Your task to perform on an android device: See recent photos Image 0: 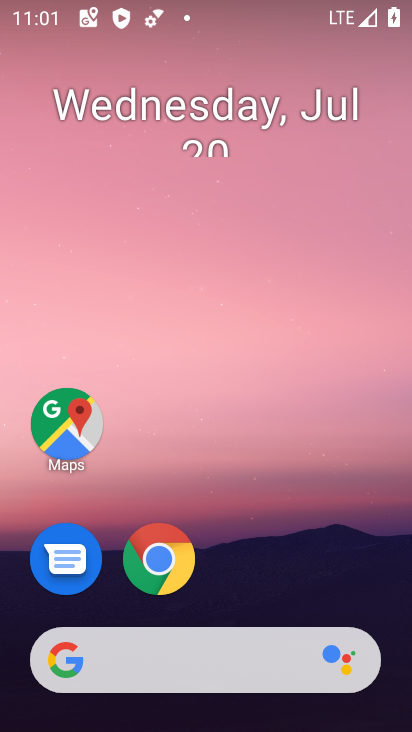
Step 0: drag from (223, 607) to (278, 88)
Your task to perform on an android device: See recent photos Image 1: 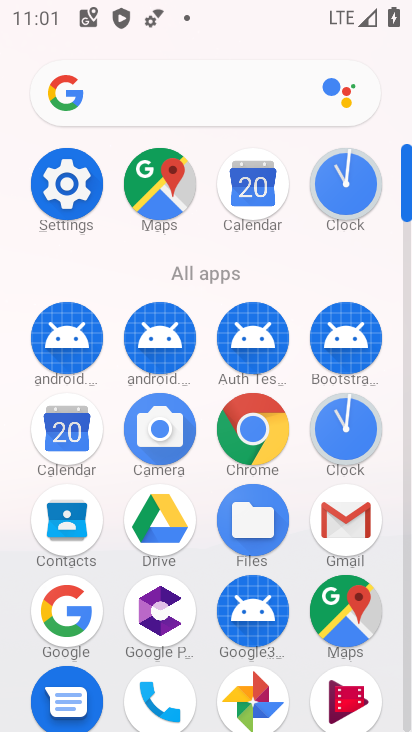
Step 1: drag from (169, 496) to (258, 74)
Your task to perform on an android device: See recent photos Image 2: 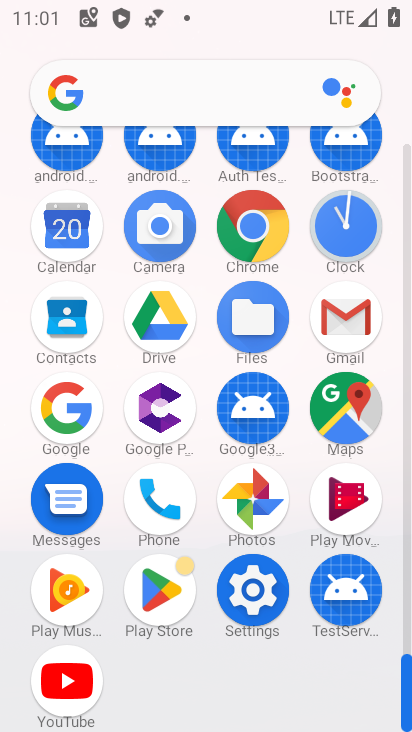
Step 2: click (257, 522)
Your task to perform on an android device: See recent photos Image 3: 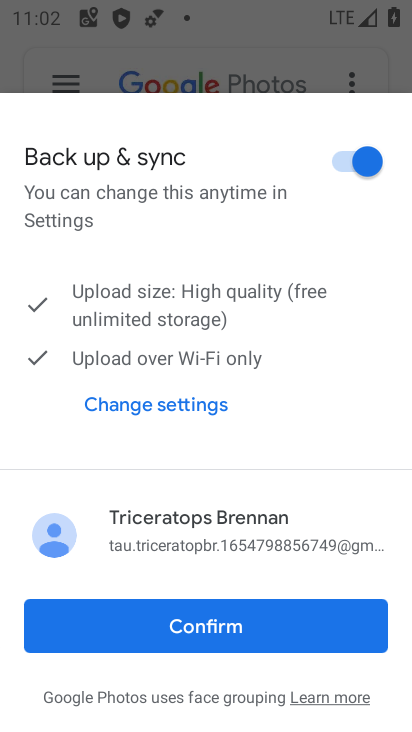
Step 3: click (253, 654)
Your task to perform on an android device: See recent photos Image 4: 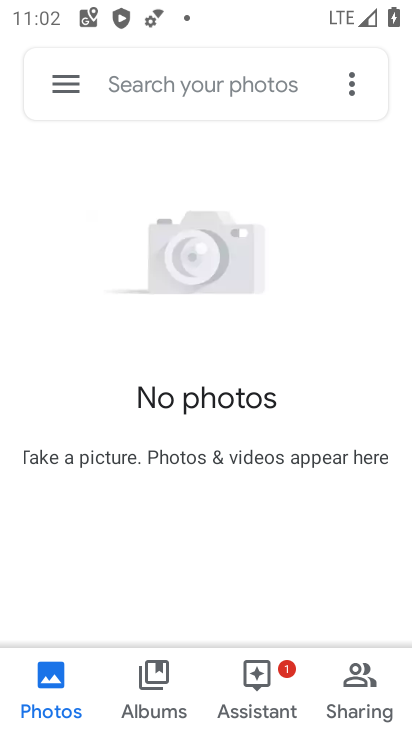
Step 4: task complete